Your task to perform on an android device: Play the new Ariana Grande video on YouTube Image 0: 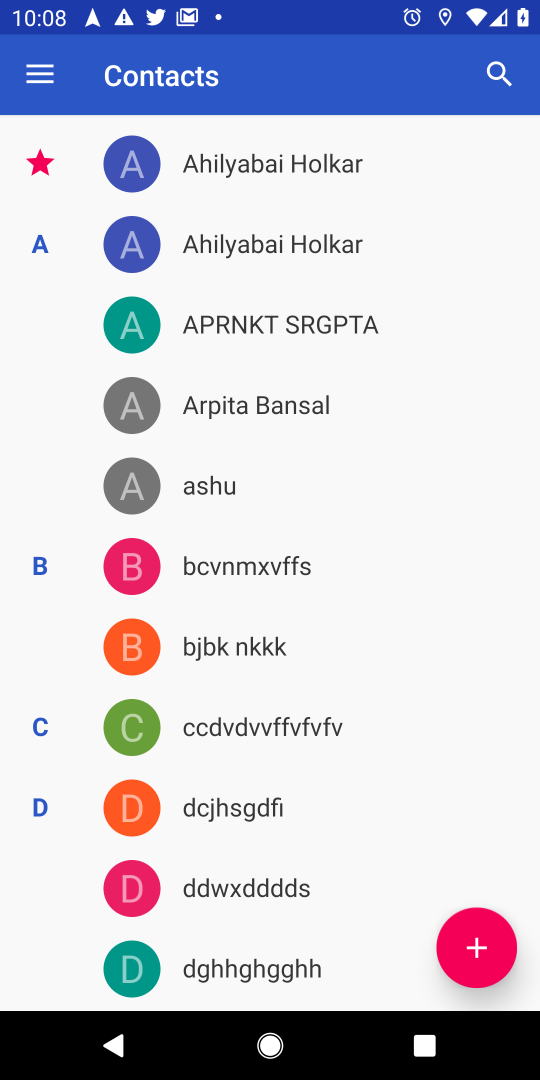
Step 0: press home button
Your task to perform on an android device: Play the new Ariana Grande video on YouTube Image 1: 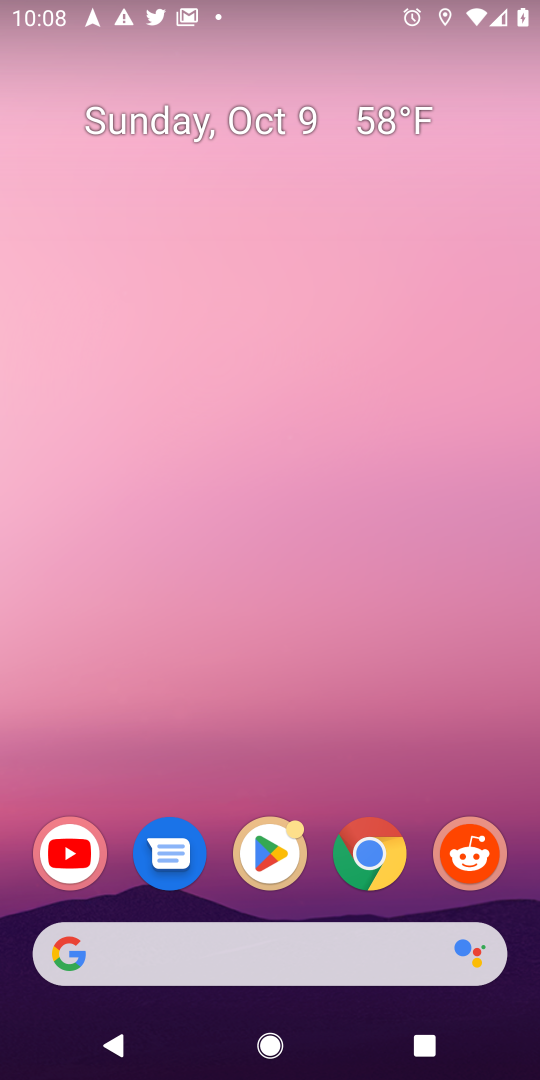
Step 1: click (76, 855)
Your task to perform on an android device: Play the new Ariana Grande video on YouTube Image 2: 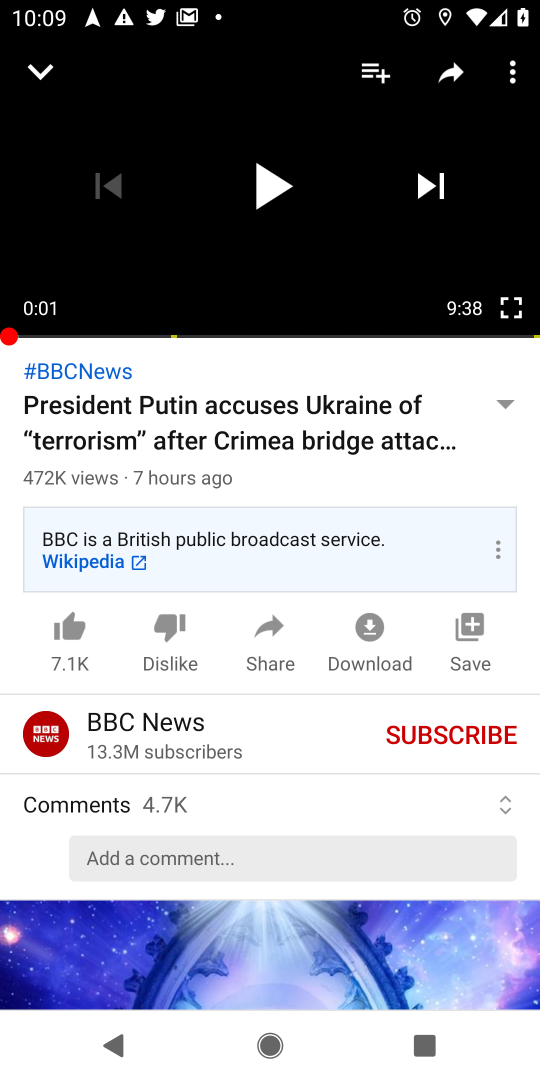
Step 2: drag from (359, 167) to (360, 885)
Your task to perform on an android device: Play the new Ariana Grande video on YouTube Image 3: 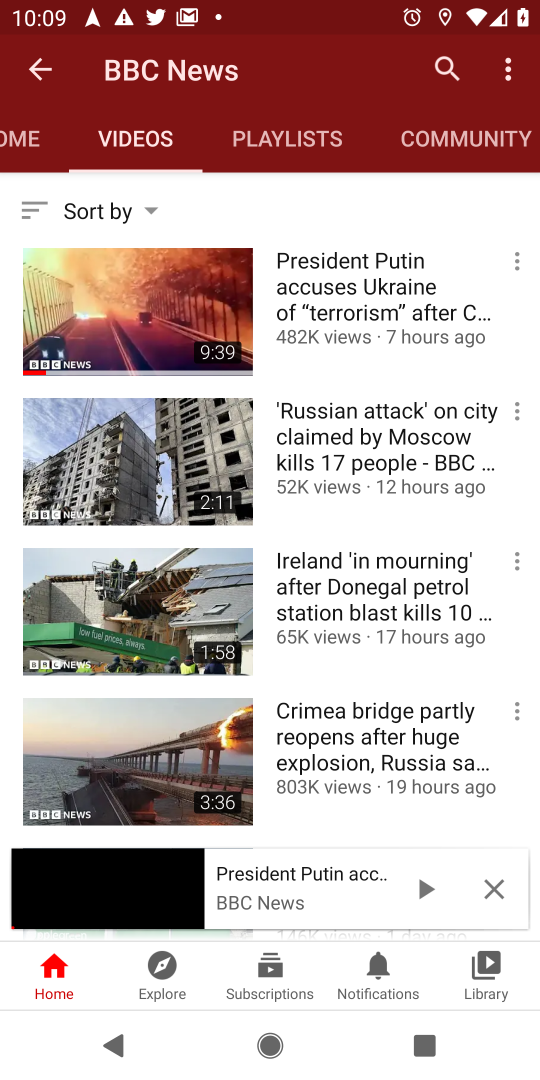
Step 3: click (502, 897)
Your task to perform on an android device: Play the new Ariana Grande video on YouTube Image 4: 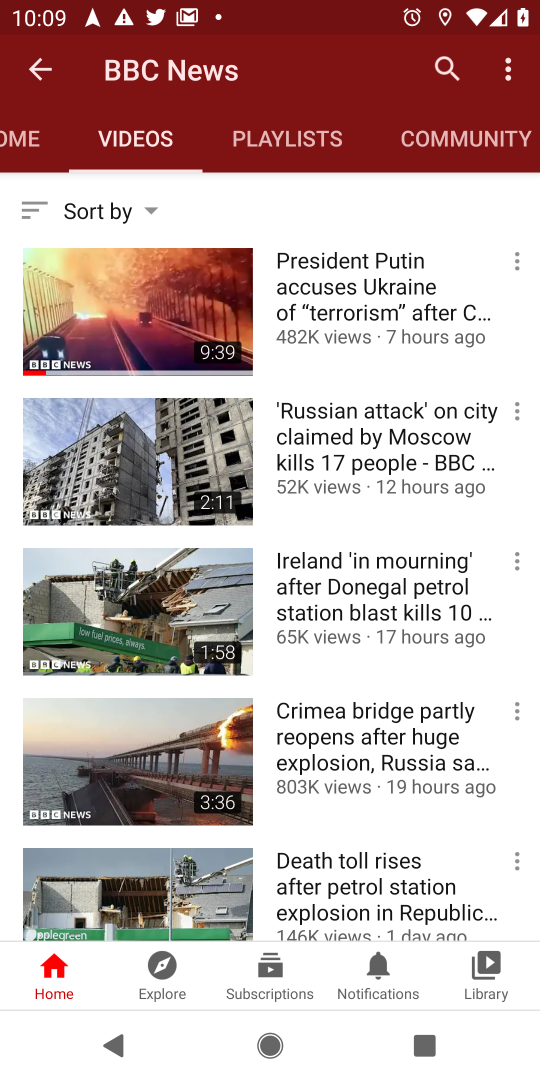
Step 4: click (461, 77)
Your task to perform on an android device: Play the new Ariana Grande video on YouTube Image 5: 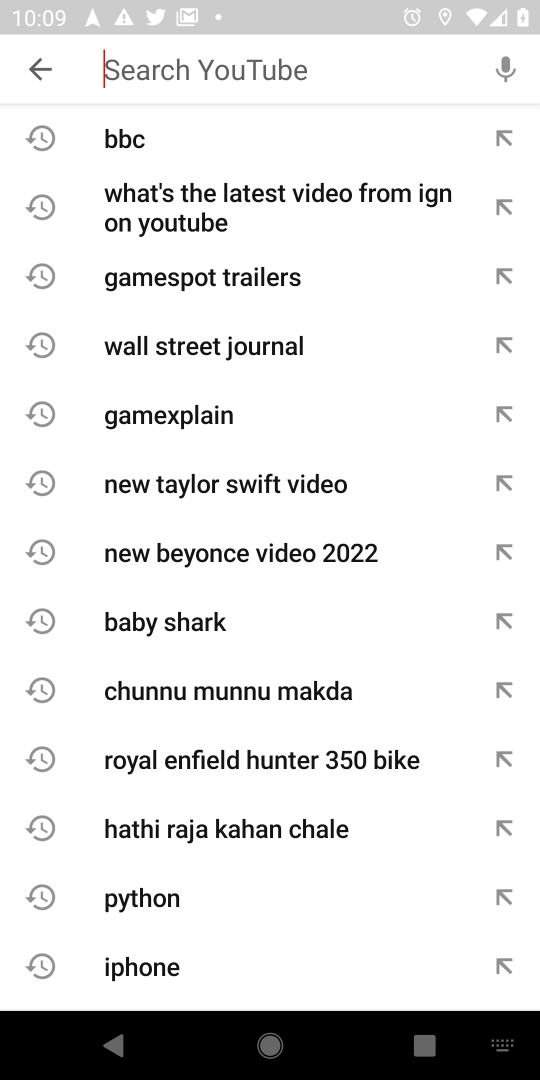
Step 5: type "ariana grande"
Your task to perform on an android device: Play the new Ariana Grande video on YouTube Image 6: 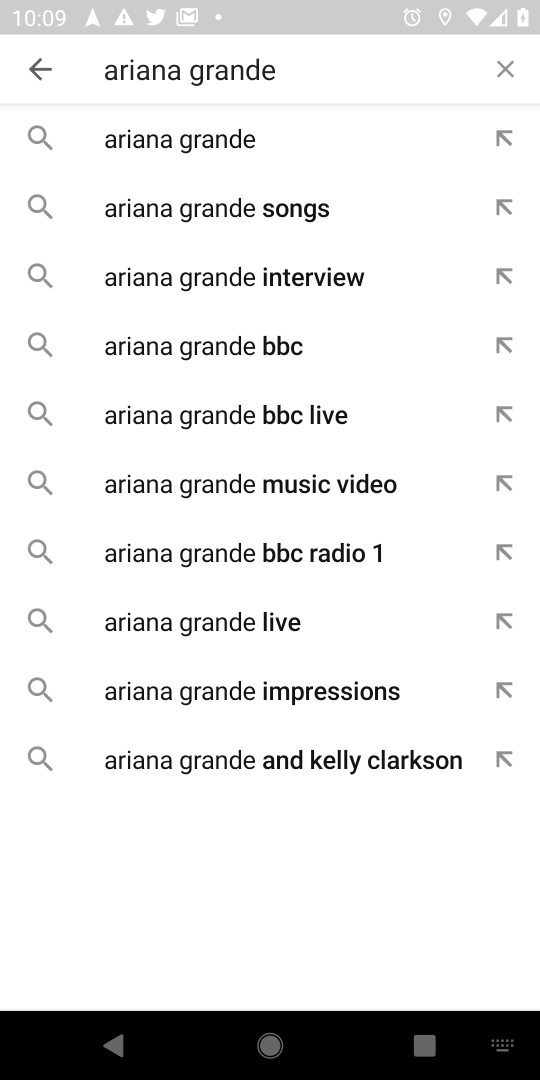
Step 6: click (324, 136)
Your task to perform on an android device: Play the new Ariana Grande video on YouTube Image 7: 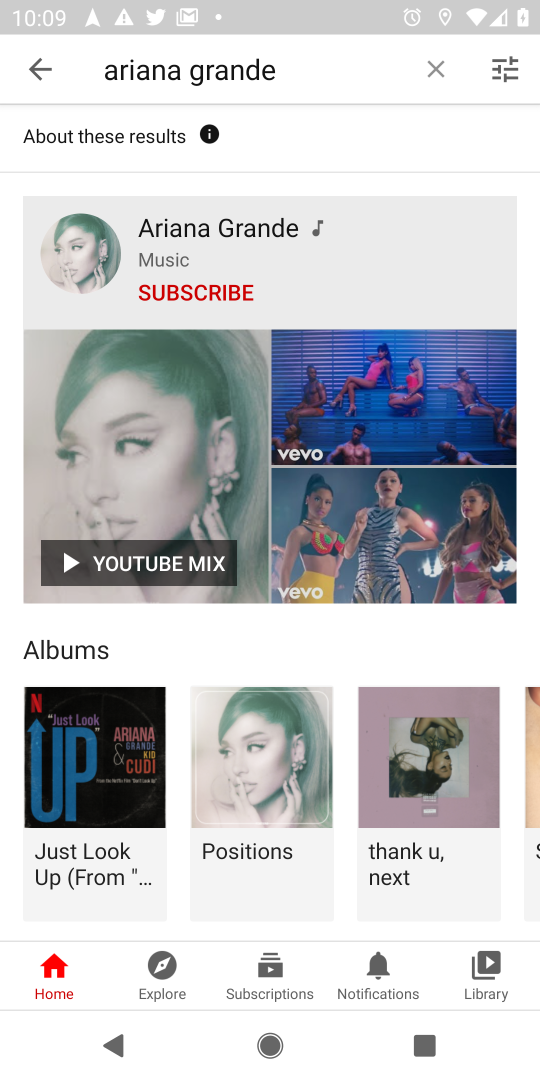
Step 7: click (210, 235)
Your task to perform on an android device: Play the new Ariana Grande video on YouTube Image 8: 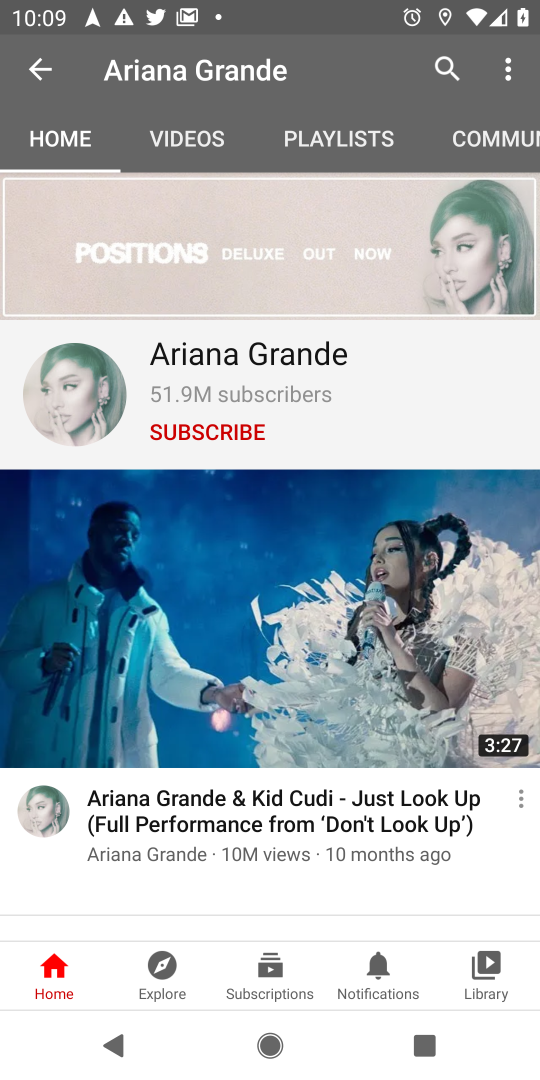
Step 8: click (198, 127)
Your task to perform on an android device: Play the new Ariana Grande video on YouTube Image 9: 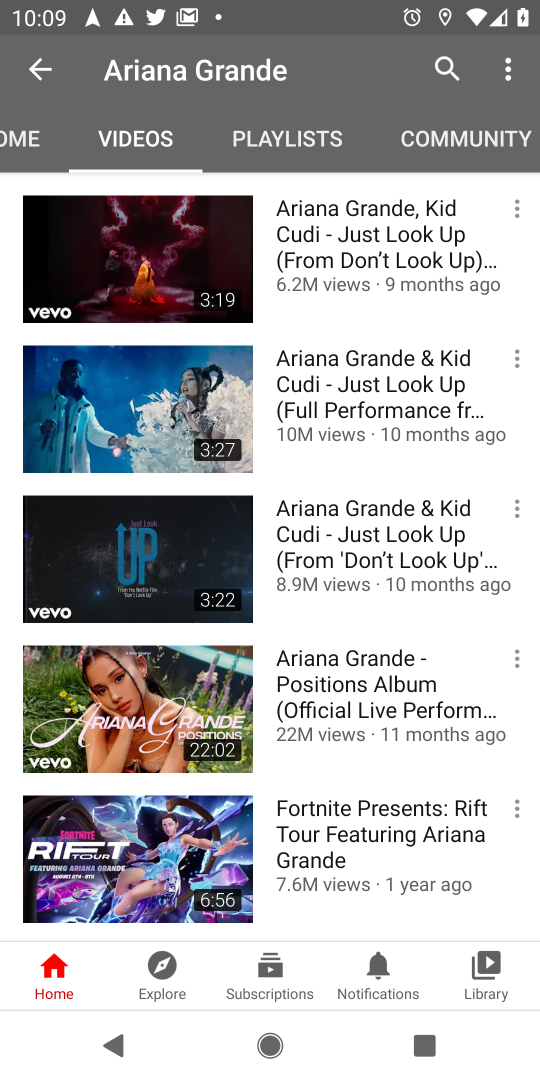
Step 9: click (350, 246)
Your task to perform on an android device: Play the new Ariana Grande video on YouTube Image 10: 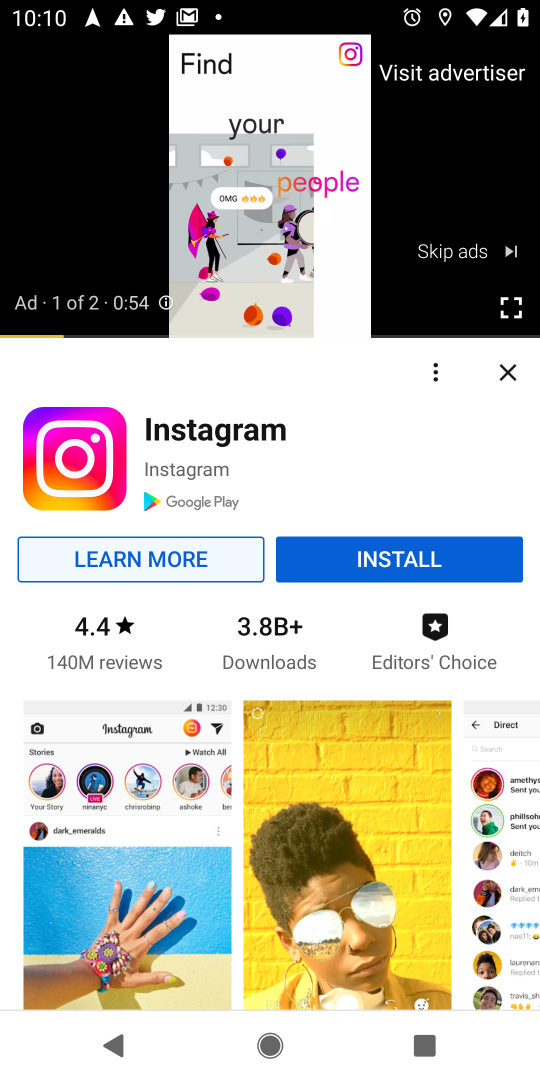
Step 10: task complete